Your task to perform on an android device: View the shopping cart on newegg.com. Add razer nari to the cart on newegg.com Image 0: 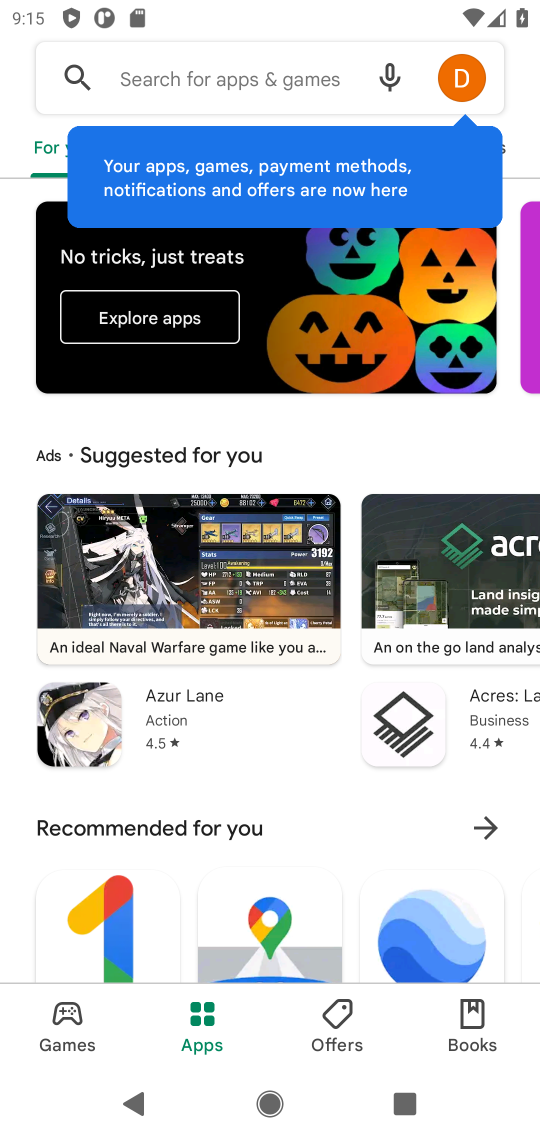
Step 0: press home button
Your task to perform on an android device: View the shopping cart on newegg.com. Add razer nari to the cart on newegg.com Image 1: 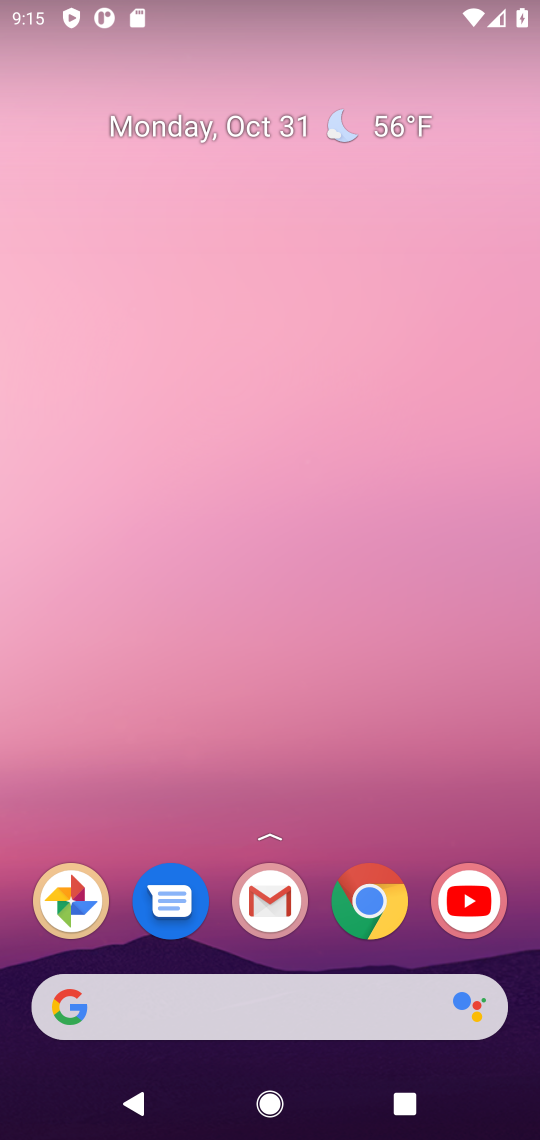
Step 1: drag from (256, 925) to (280, 327)
Your task to perform on an android device: View the shopping cart on newegg.com. Add razer nari to the cart on newegg.com Image 2: 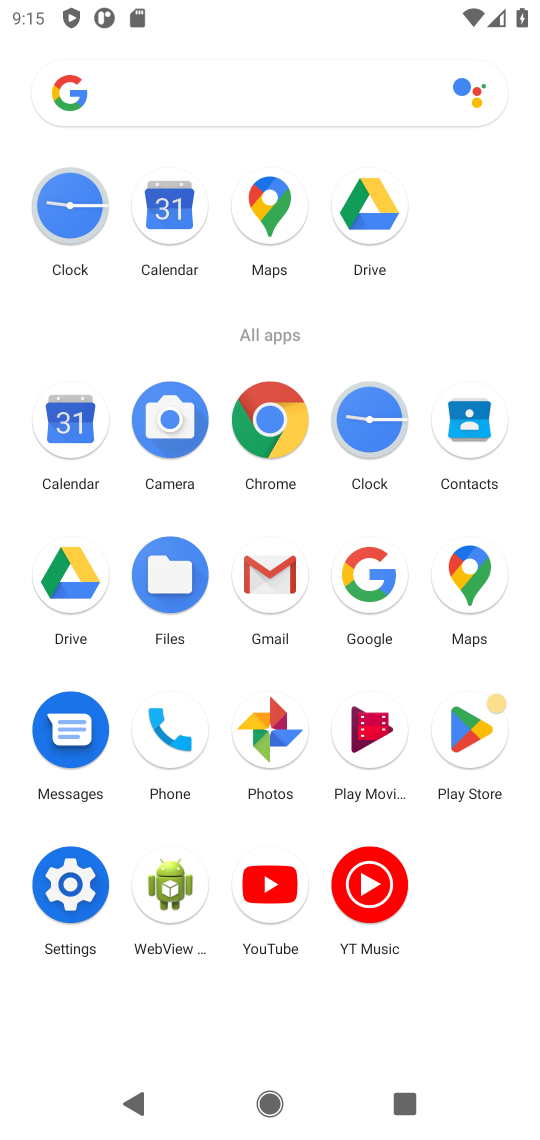
Step 2: click (365, 563)
Your task to perform on an android device: View the shopping cart on newegg.com. Add razer nari to the cart on newegg.com Image 3: 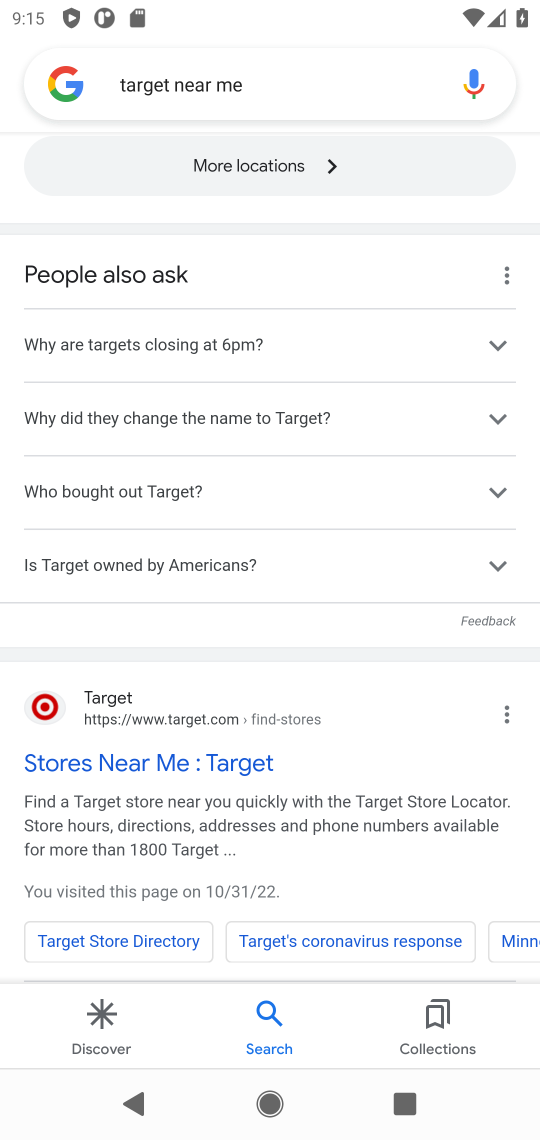
Step 3: drag from (274, 114) to (228, 809)
Your task to perform on an android device: View the shopping cart on newegg.com. Add razer nari to the cart on newegg.com Image 4: 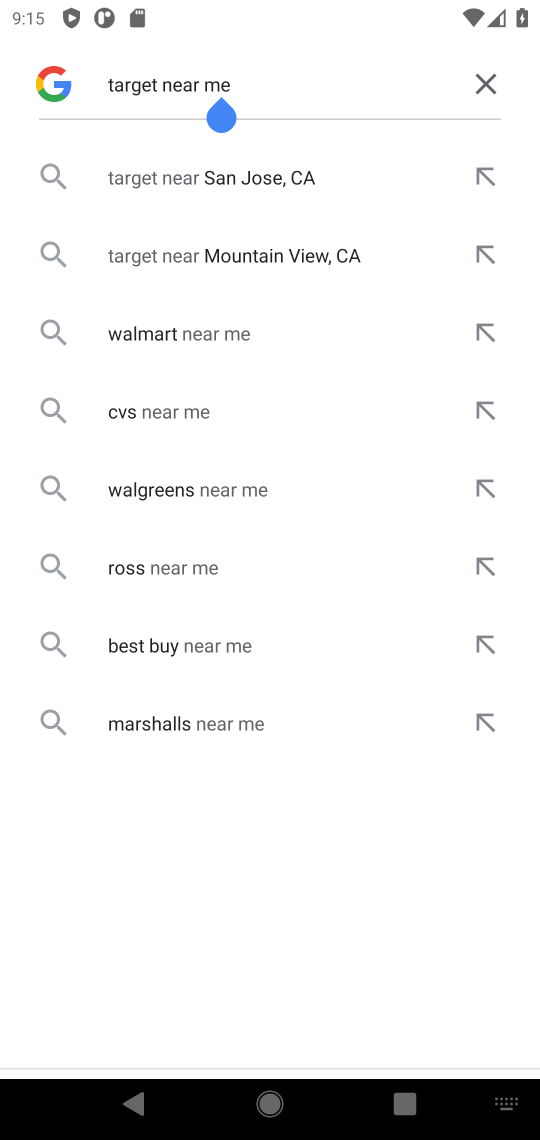
Step 4: click (215, 66)
Your task to perform on an android device: View the shopping cart on newegg.com. Add razer nari to the cart on newegg.com Image 5: 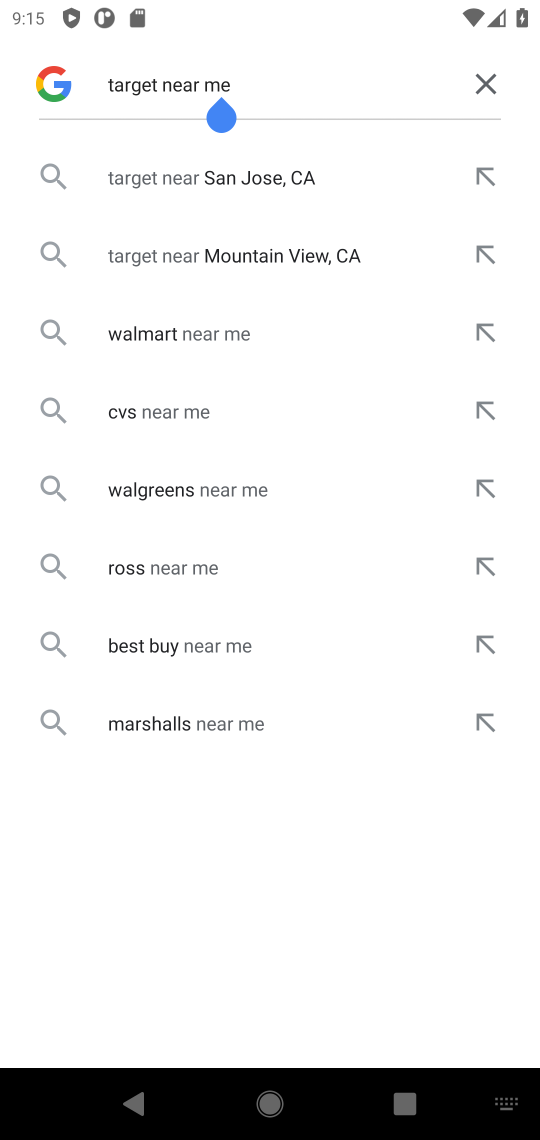
Step 5: click (491, 81)
Your task to perform on an android device: View the shopping cart on newegg.com. Add razer nari to the cart on newegg.com Image 6: 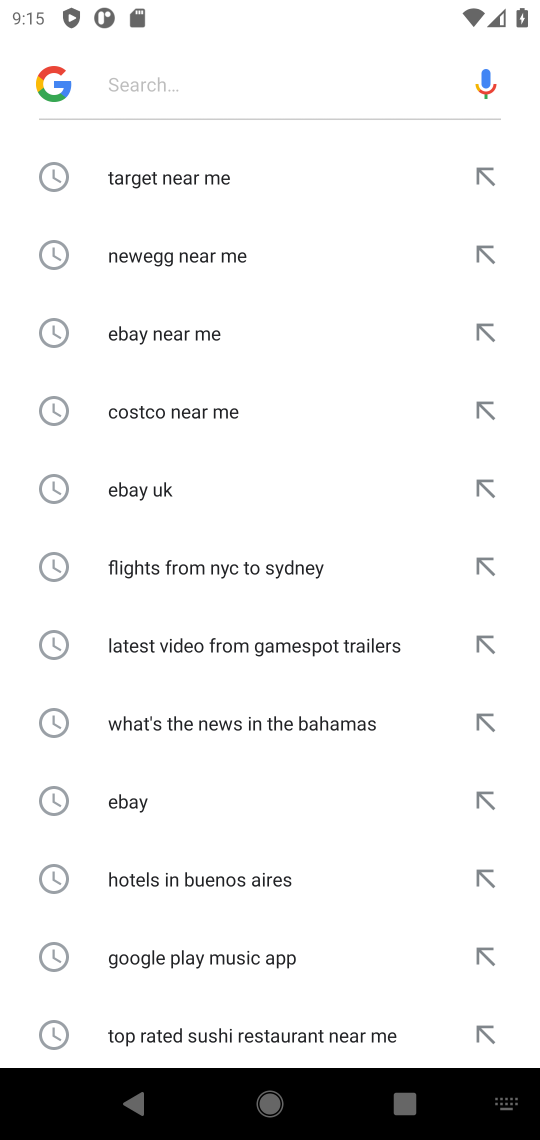
Step 6: click (176, 244)
Your task to perform on an android device: View the shopping cart on newegg.com. Add razer nari to the cart on newegg.com Image 7: 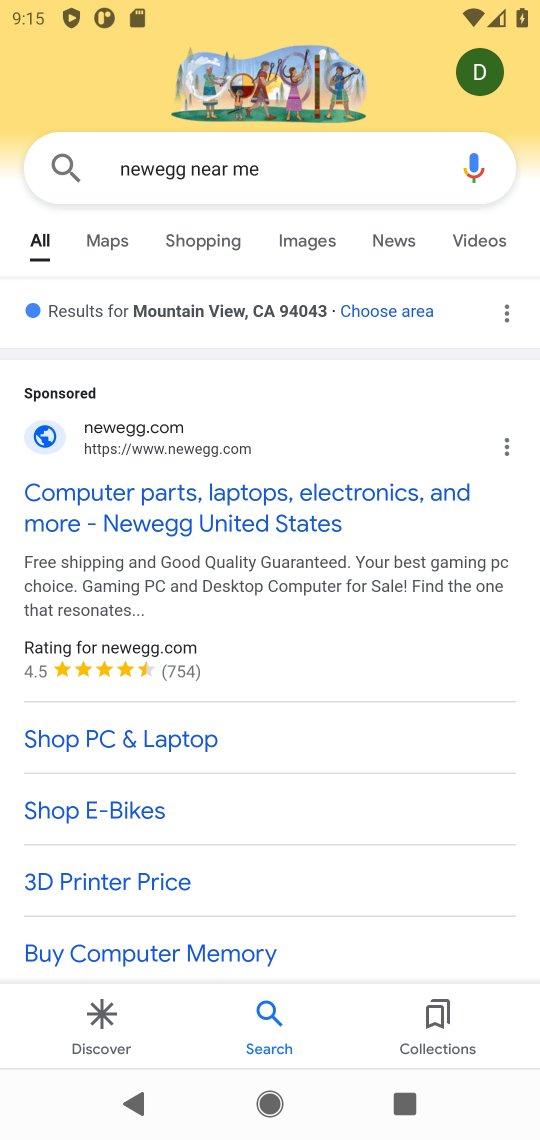
Step 7: click (169, 489)
Your task to perform on an android device: View the shopping cart on newegg.com. Add razer nari to the cart on newegg.com Image 8: 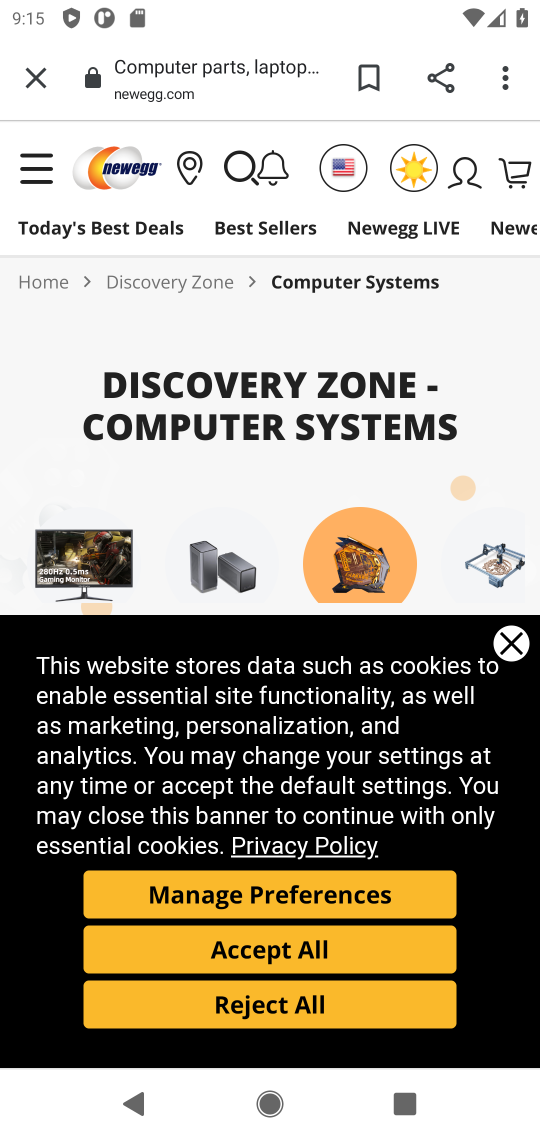
Step 8: click (243, 153)
Your task to perform on an android device: View the shopping cart on newegg.com. Add razer nari to the cart on newegg.com Image 9: 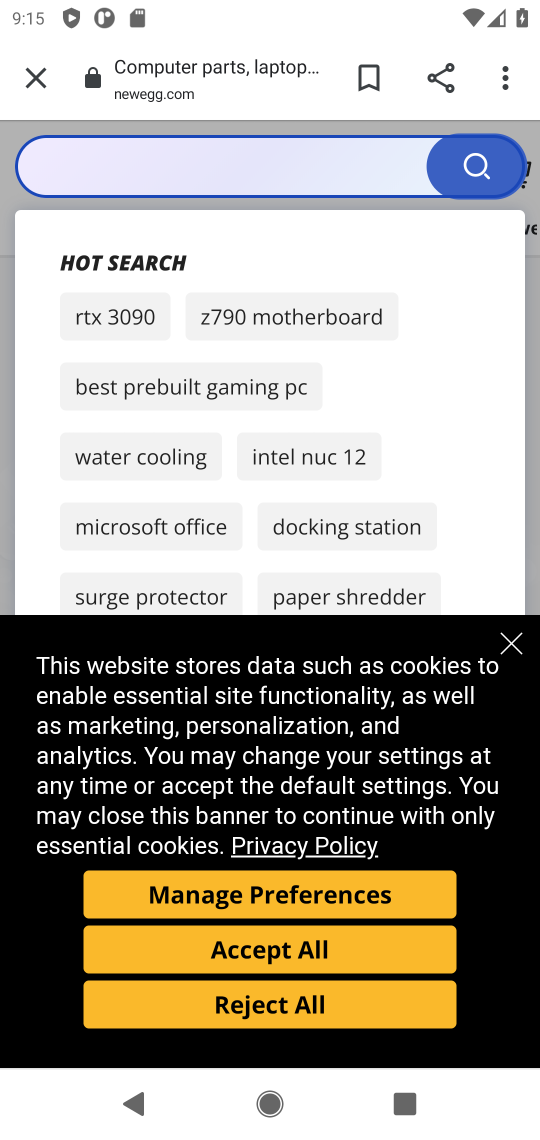
Step 9: click (253, 152)
Your task to perform on an android device: View the shopping cart on newegg.com. Add razer nari to the cart on newegg.com Image 10: 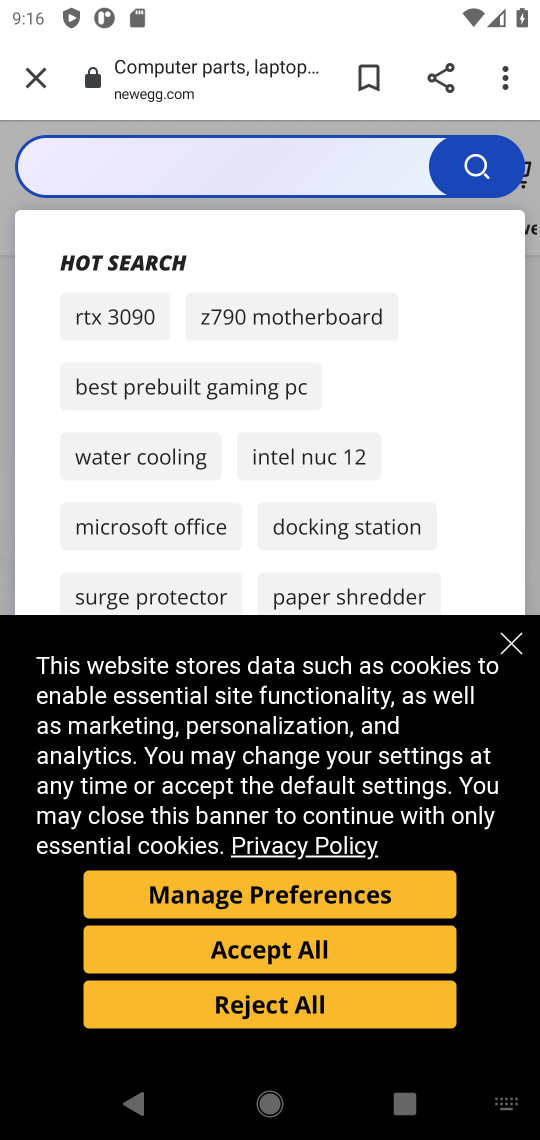
Step 10: type "razer nari "
Your task to perform on an android device: View the shopping cart on newegg.com. Add razer nari to the cart on newegg.com Image 11: 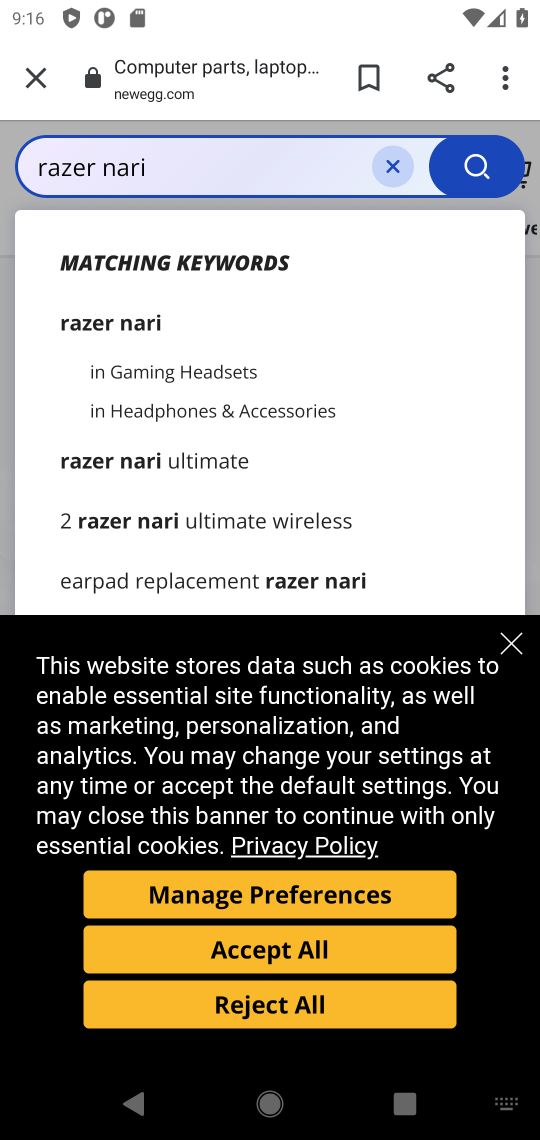
Step 11: click (52, 311)
Your task to perform on an android device: View the shopping cart on newegg.com. Add razer nari to the cart on newegg.com Image 12: 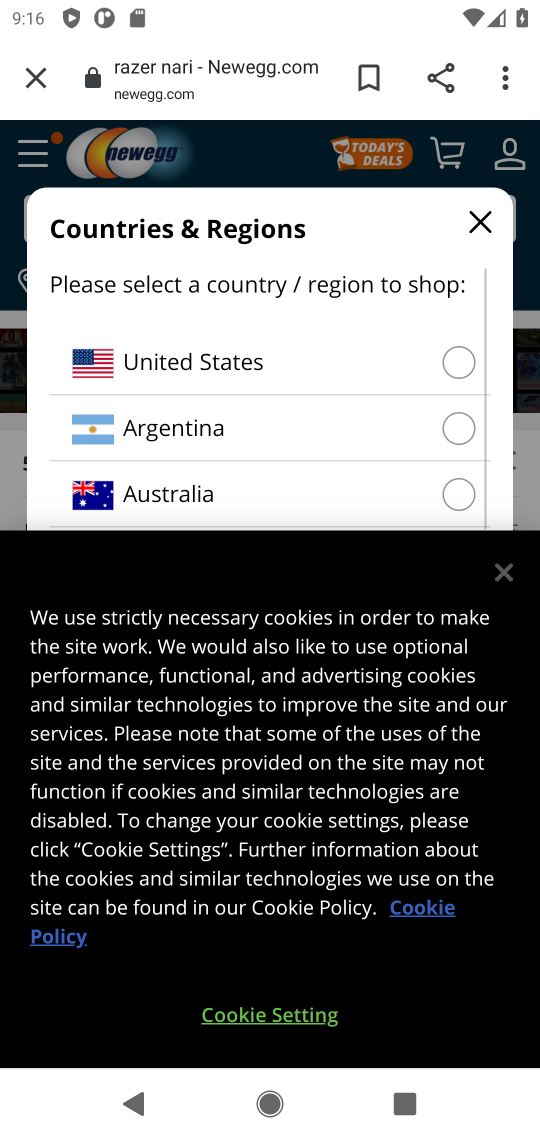
Step 12: click (509, 585)
Your task to perform on an android device: View the shopping cart on newegg.com. Add razer nari to the cart on newegg.com Image 13: 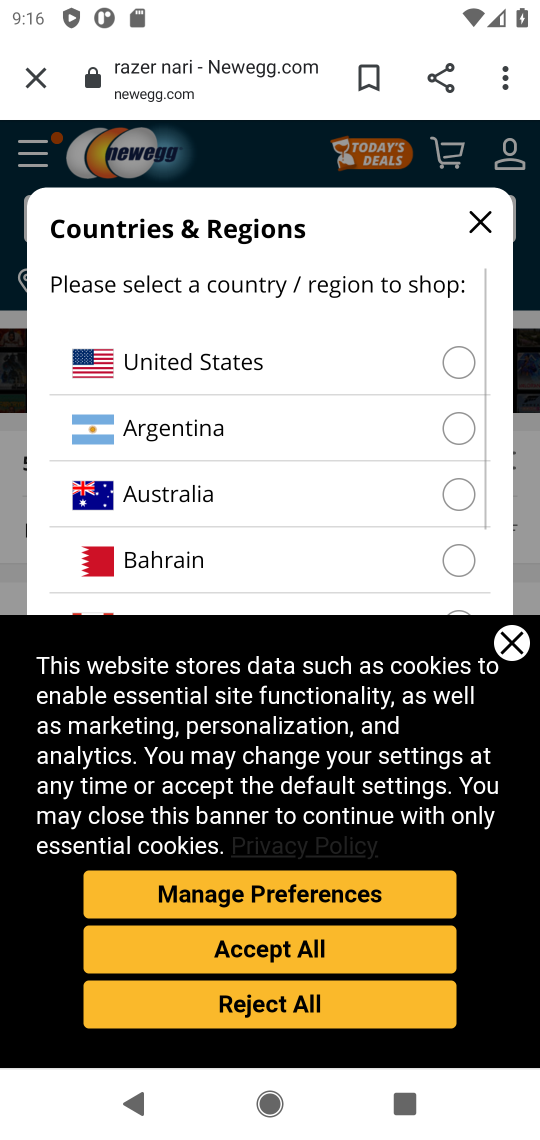
Step 13: click (516, 648)
Your task to perform on an android device: View the shopping cart on newegg.com. Add razer nari to the cart on newegg.com Image 14: 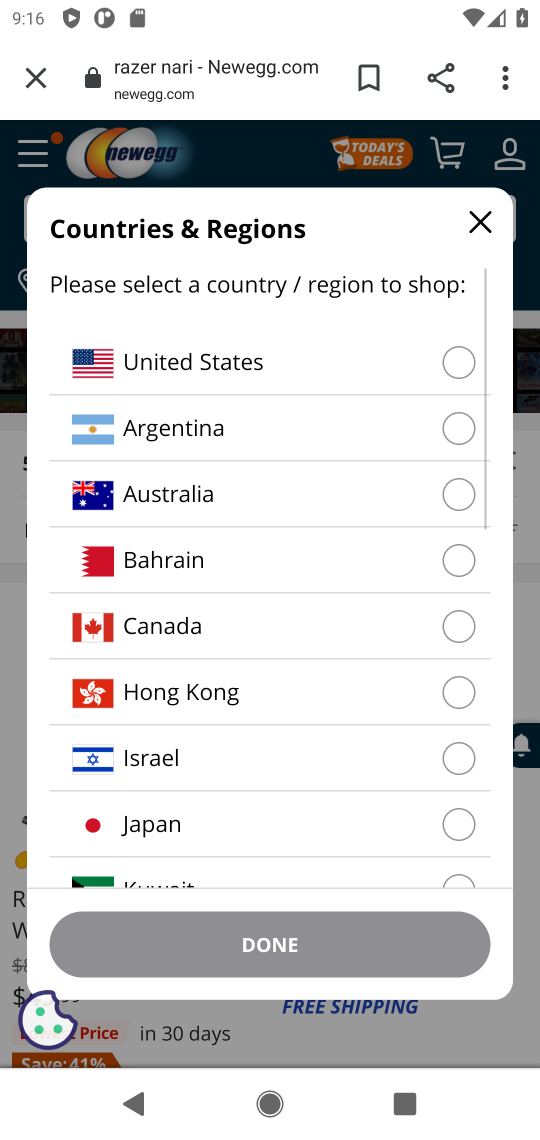
Step 14: click (482, 214)
Your task to perform on an android device: View the shopping cart on newegg.com. Add razer nari to the cart on newegg.com Image 15: 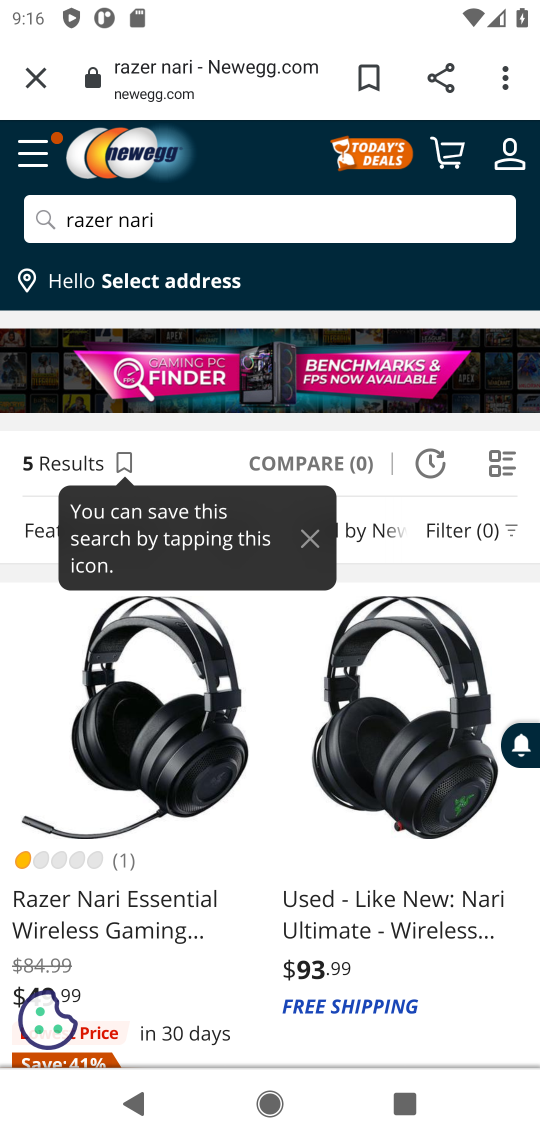
Step 15: click (101, 888)
Your task to perform on an android device: View the shopping cart on newegg.com. Add razer nari to the cart on newegg.com Image 16: 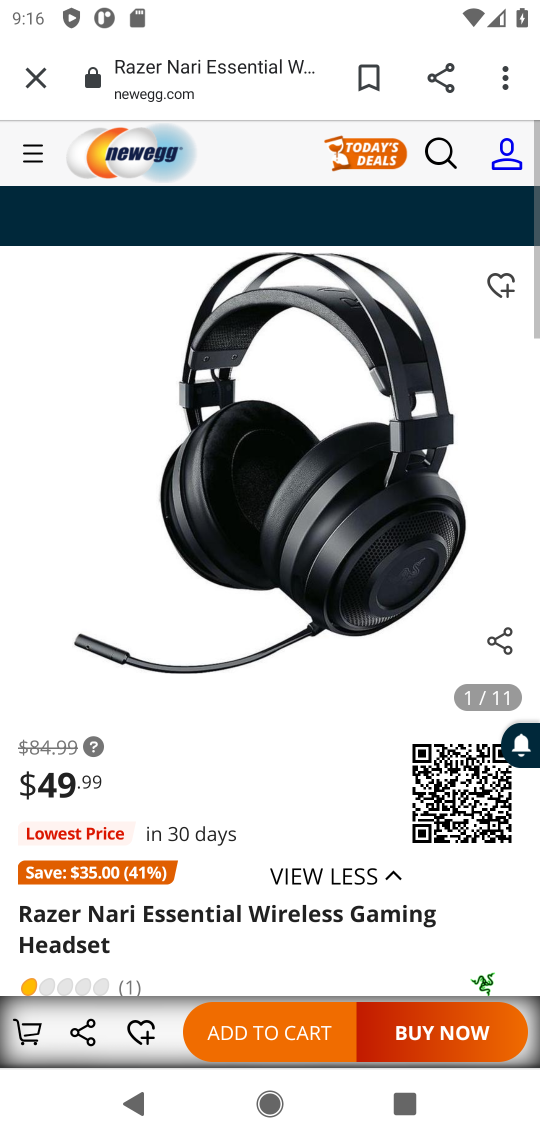
Step 16: click (263, 1030)
Your task to perform on an android device: View the shopping cart on newegg.com. Add razer nari to the cart on newegg.com Image 17: 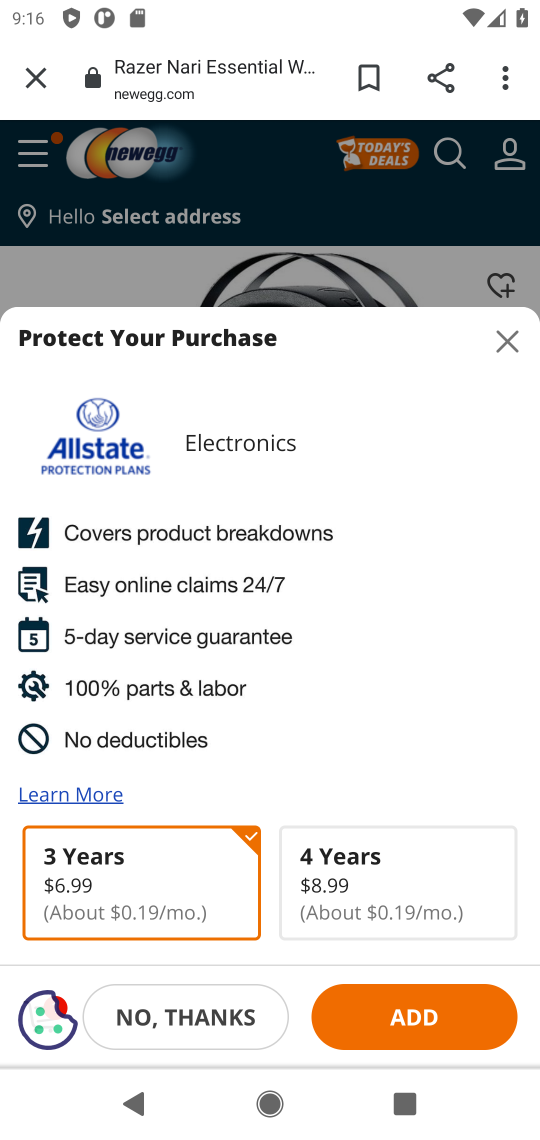
Step 17: click (436, 1027)
Your task to perform on an android device: View the shopping cart on newegg.com. Add razer nari to the cart on newegg.com Image 18: 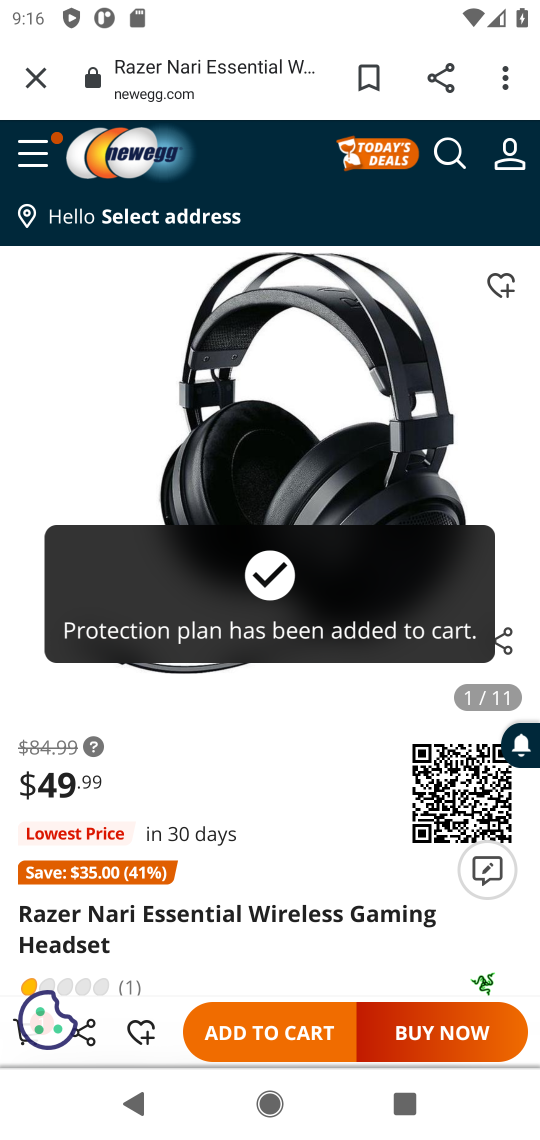
Step 18: task complete